Your task to perform on an android device: snooze an email in the gmail app Image 0: 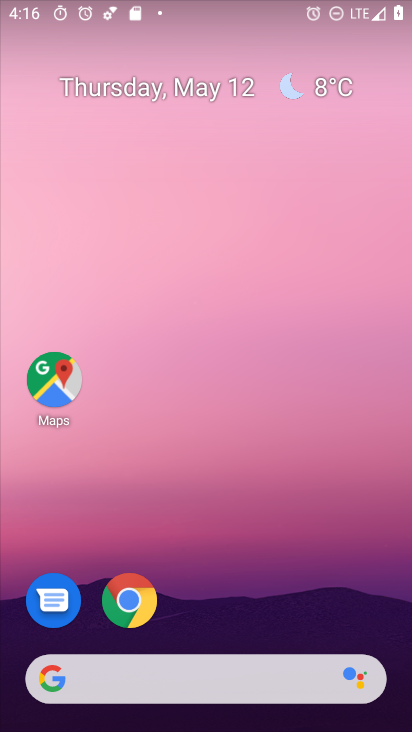
Step 0: drag from (212, 730) to (214, 235)
Your task to perform on an android device: snooze an email in the gmail app Image 1: 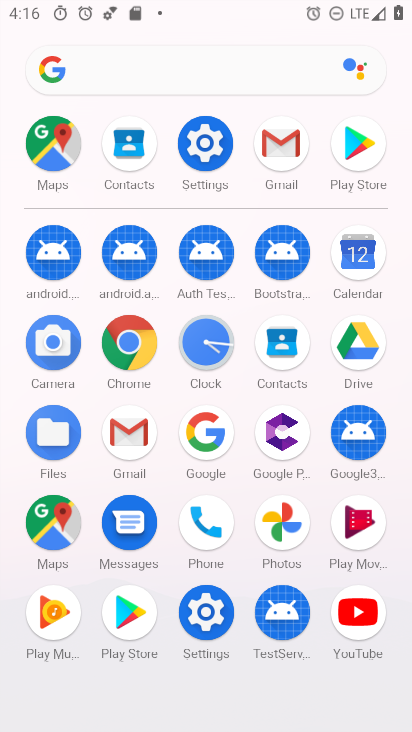
Step 1: click (278, 146)
Your task to perform on an android device: snooze an email in the gmail app Image 2: 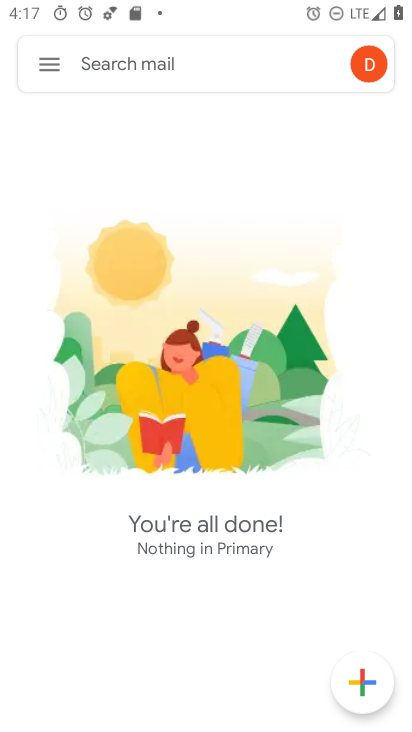
Step 2: task complete